Your task to perform on an android device: open app "Gmail" (install if not already installed) Image 0: 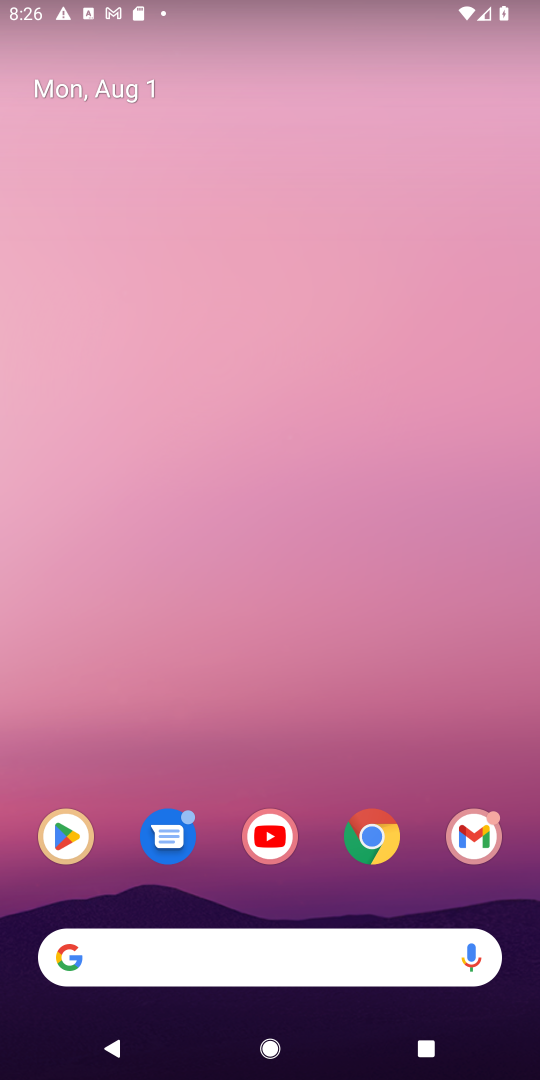
Step 0: click (61, 831)
Your task to perform on an android device: open app "Gmail" (install if not already installed) Image 1: 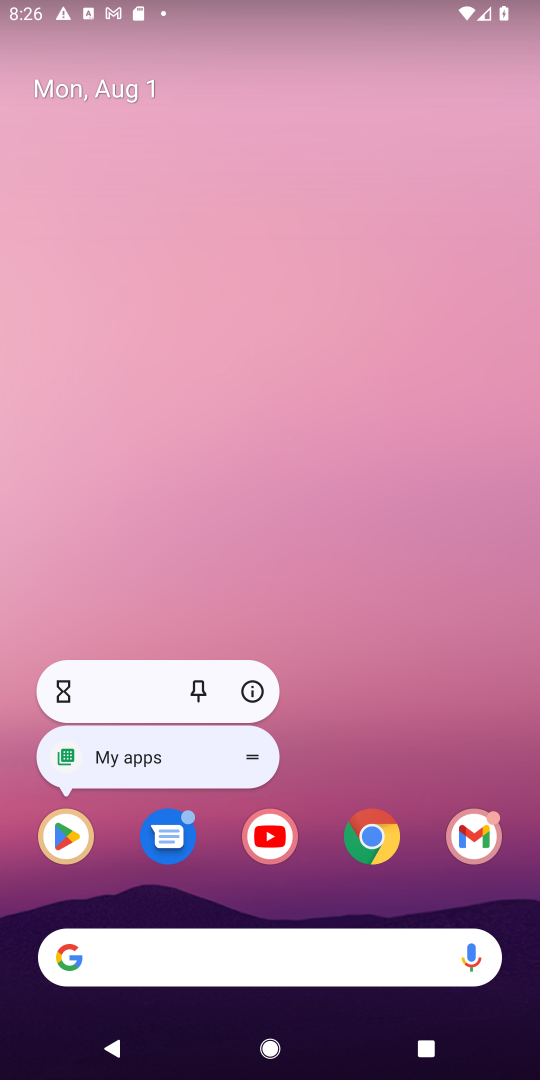
Step 1: click (61, 831)
Your task to perform on an android device: open app "Gmail" (install if not already installed) Image 2: 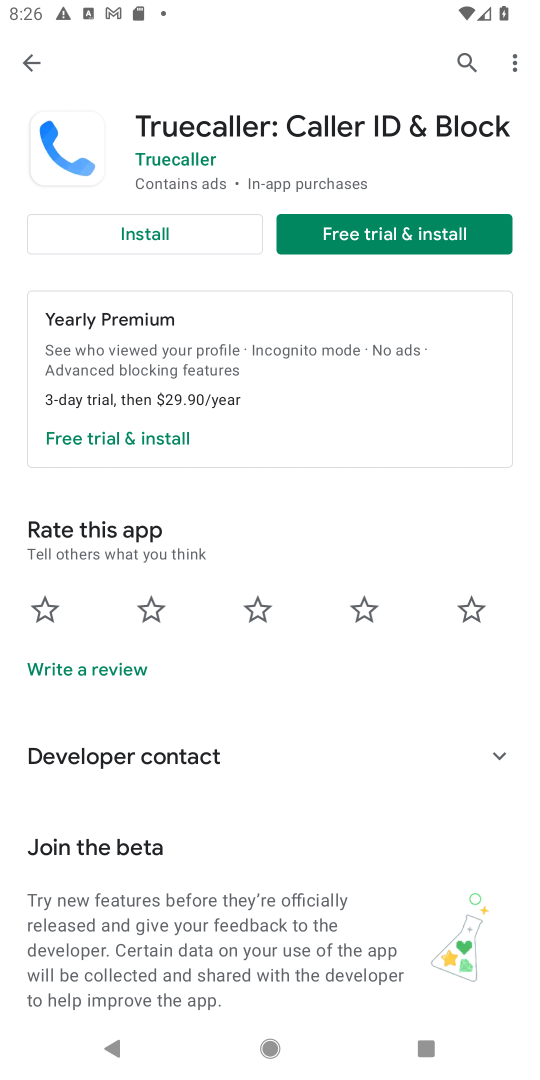
Step 2: click (467, 51)
Your task to perform on an android device: open app "Gmail" (install if not already installed) Image 3: 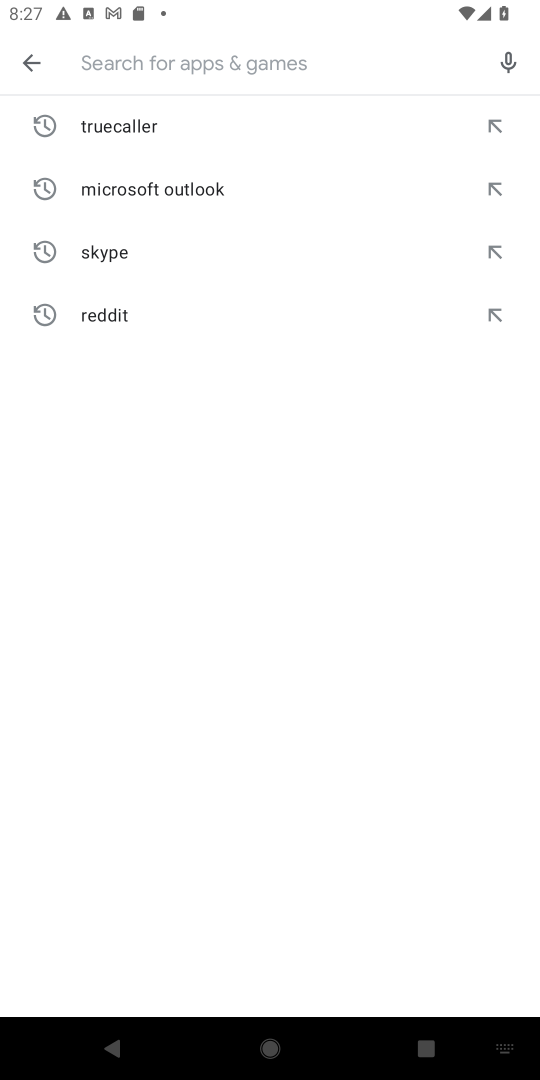
Step 3: type "Gmail"
Your task to perform on an android device: open app "Gmail" (install if not already installed) Image 4: 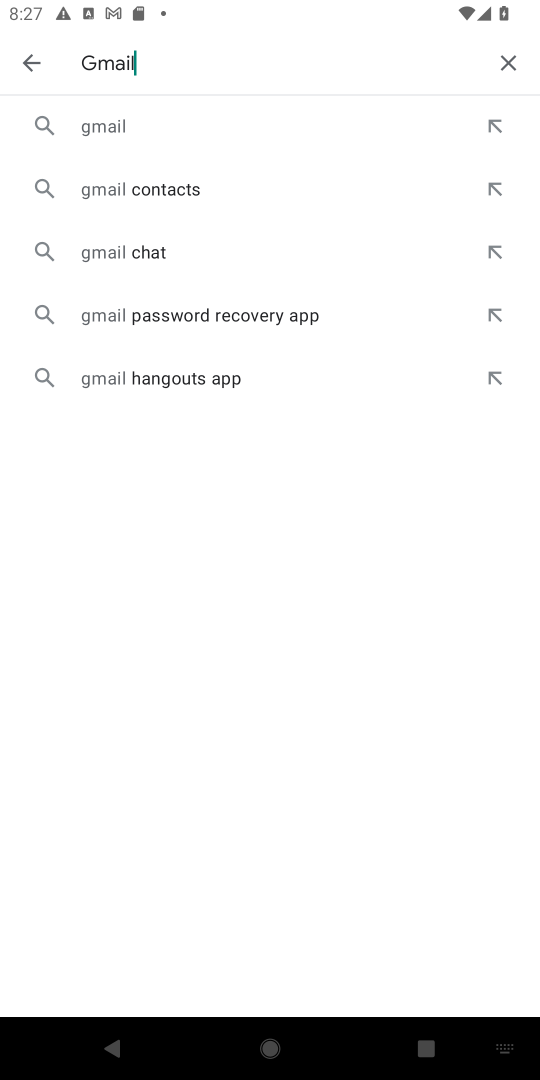
Step 4: click (123, 134)
Your task to perform on an android device: open app "Gmail" (install if not already installed) Image 5: 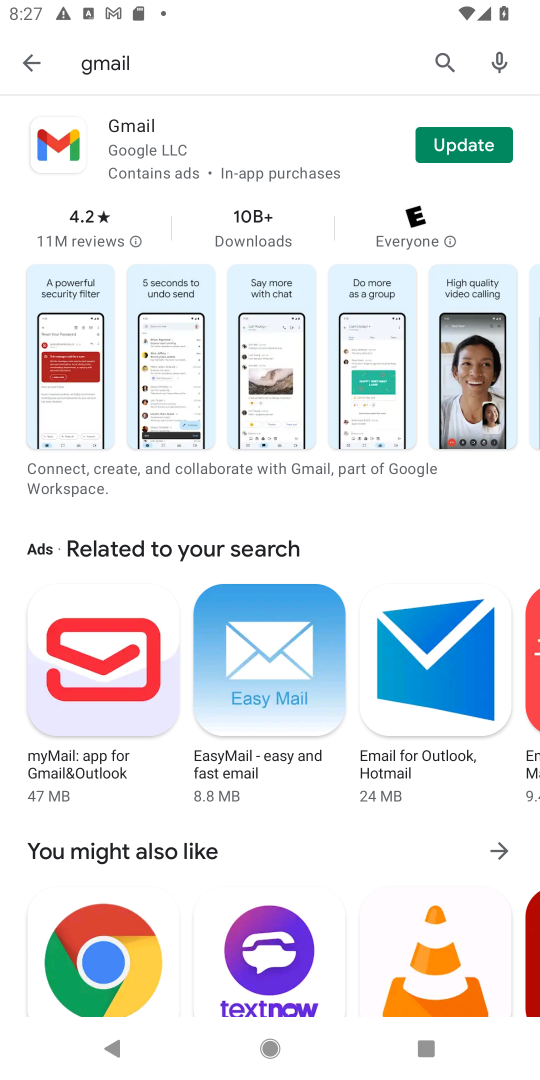
Step 5: click (117, 136)
Your task to perform on an android device: open app "Gmail" (install if not already installed) Image 6: 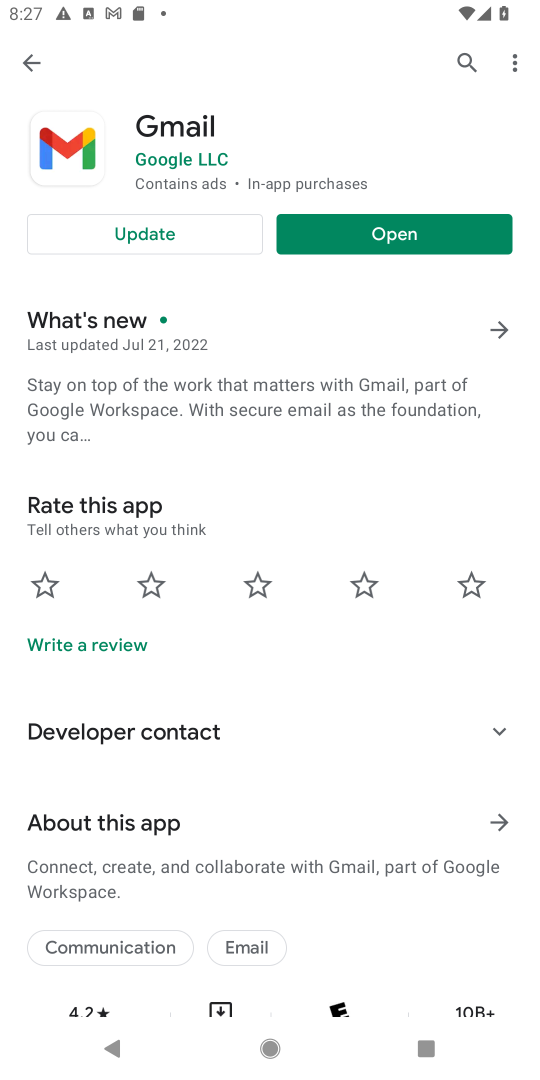
Step 6: click (405, 234)
Your task to perform on an android device: open app "Gmail" (install if not already installed) Image 7: 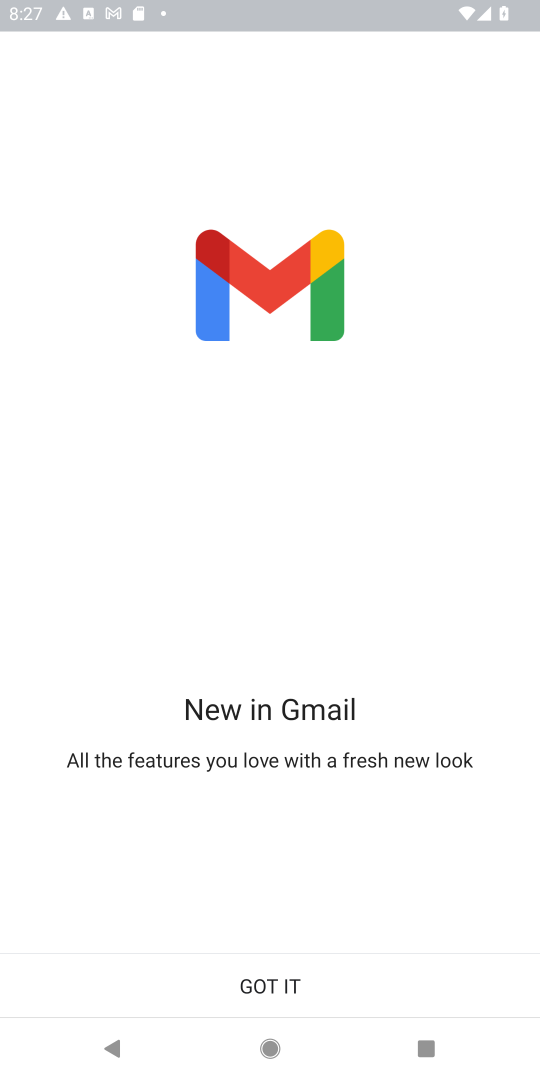
Step 7: task complete